Your task to perform on an android device: See recent photos Image 0: 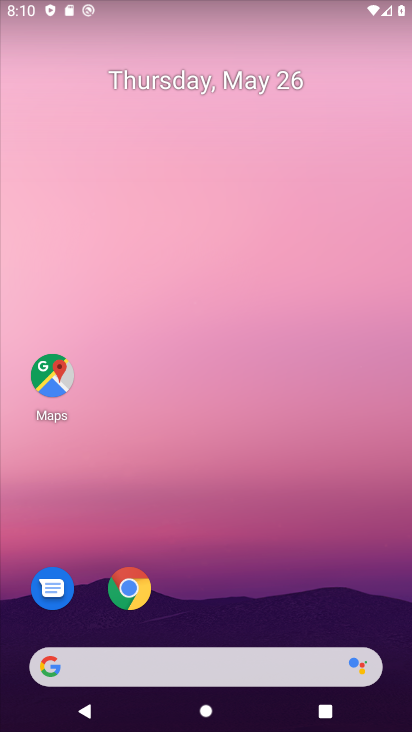
Step 0: drag from (262, 608) to (170, 46)
Your task to perform on an android device: See recent photos Image 1: 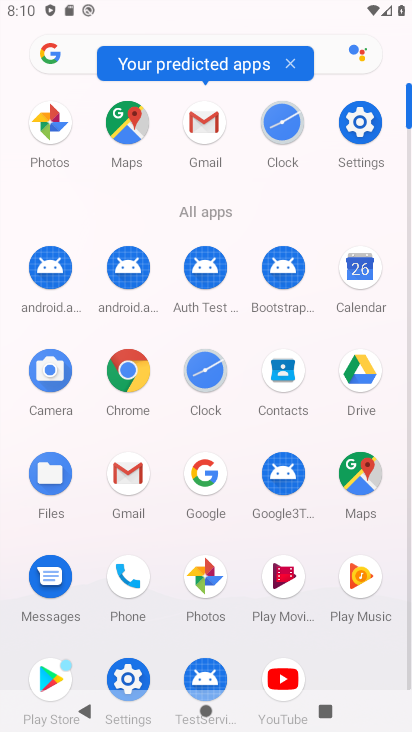
Step 1: click (211, 572)
Your task to perform on an android device: See recent photos Image 2: 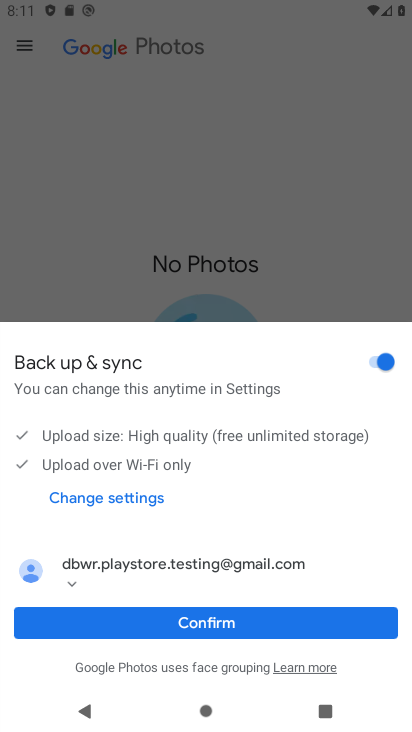
Step 2: click (232, 619)
Your task to perform on an android device: See recent photos Image 3: 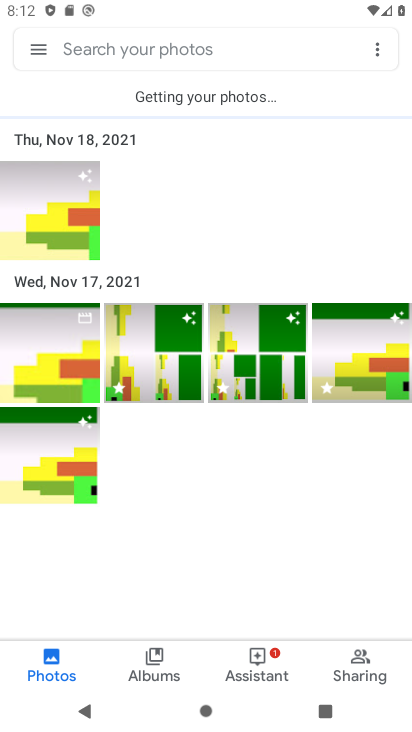
Step 3: task complete